Your task to perform on an android device: Clear the shopping cart on bestbuy.com. Add "logitech g pro" to the cart on bestbuy.com, then select checkout. Image 0: 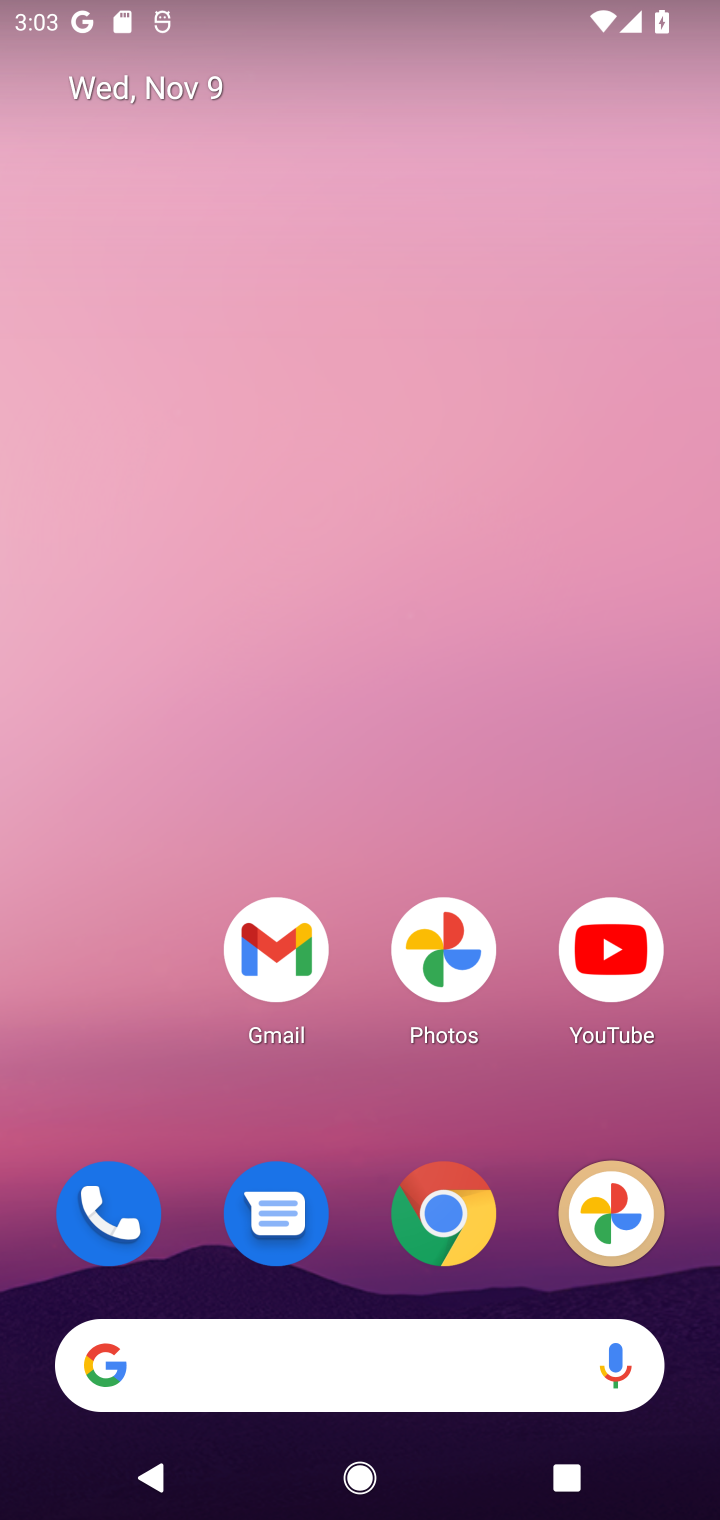
Step 0: click (444, 1216)
Your task to perform on an android device: Clear the shopping cart on bestbuy.com. Add "logitech g pro" to the cart on bestbuy.com, then select checkout. Image 1: 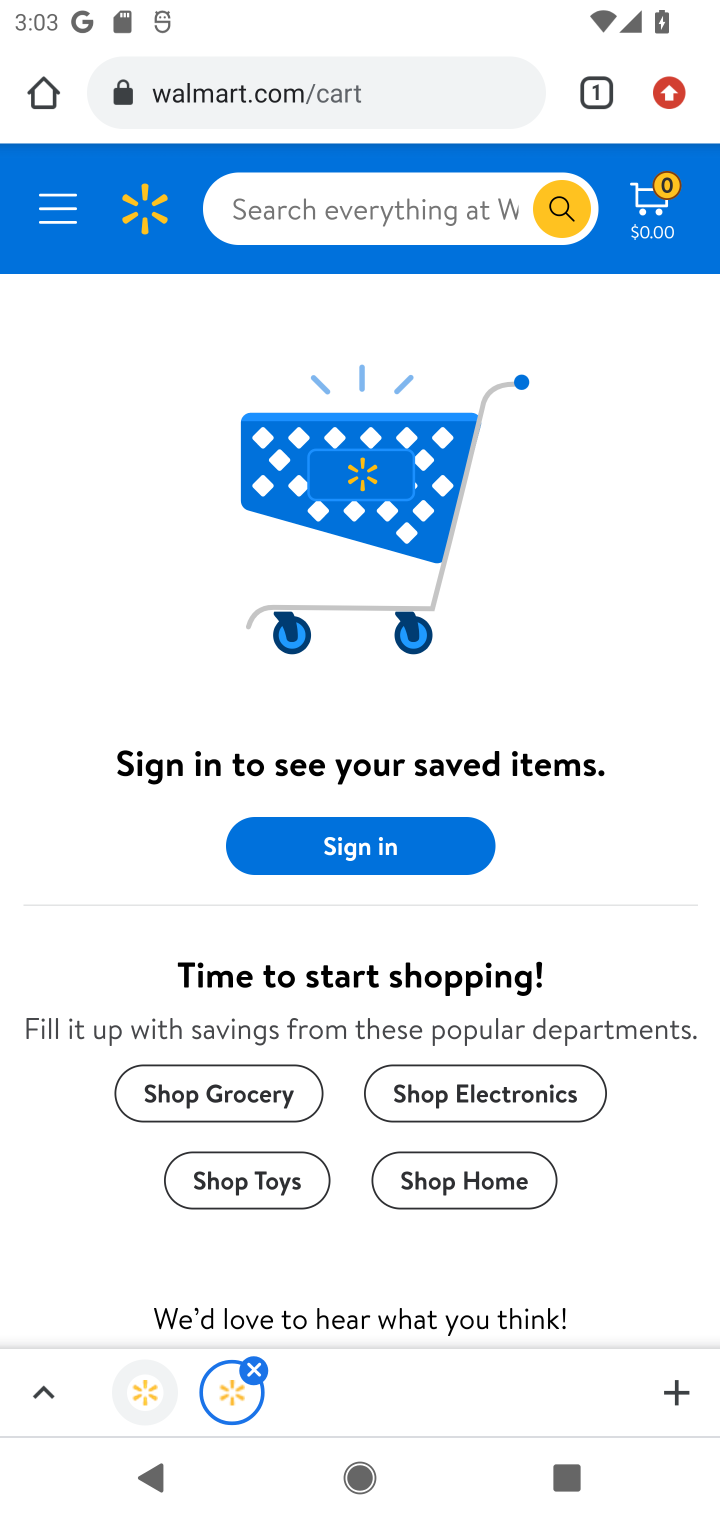
Step 1: click (377, 99)
Your task to perform on an android device: Clear the shopping cart on bestbuy.com. Add "logitech g pro" to the cart on bestbuy.com, then select checkout. Image 2: 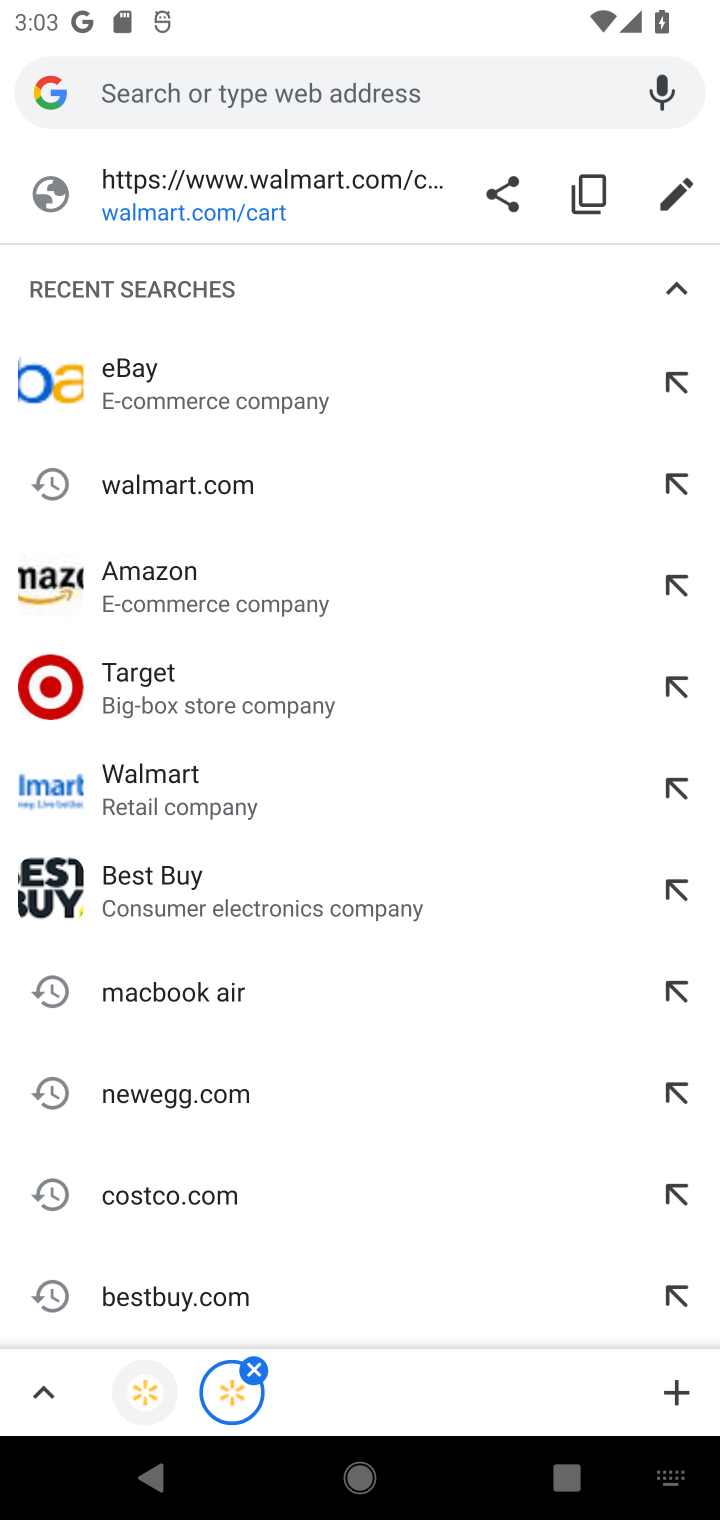
Step 2: type "bestbuy.com"
Your task to perform on an android device: Clear the shopping cart on bestbuy.com. Add "logitech g pro" to the cart on bestbuy.com, then select checkout. Image 3: 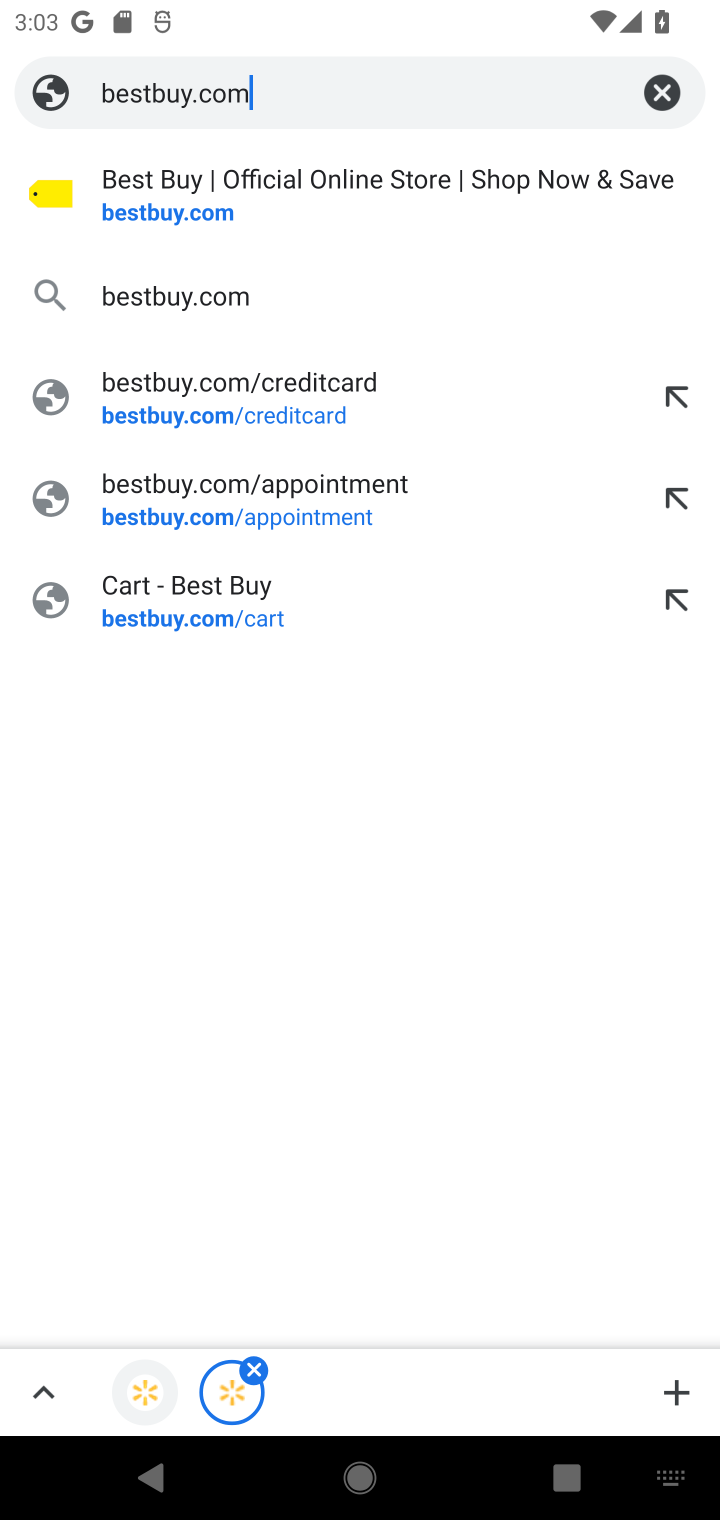
Step 3: click (206, 296)
Your task to perform on an android device: Clear the shopping cart on bestbuy.com. Add "logitech g pro" to the cart on bestbuy.com, then select checkout. Image 4: 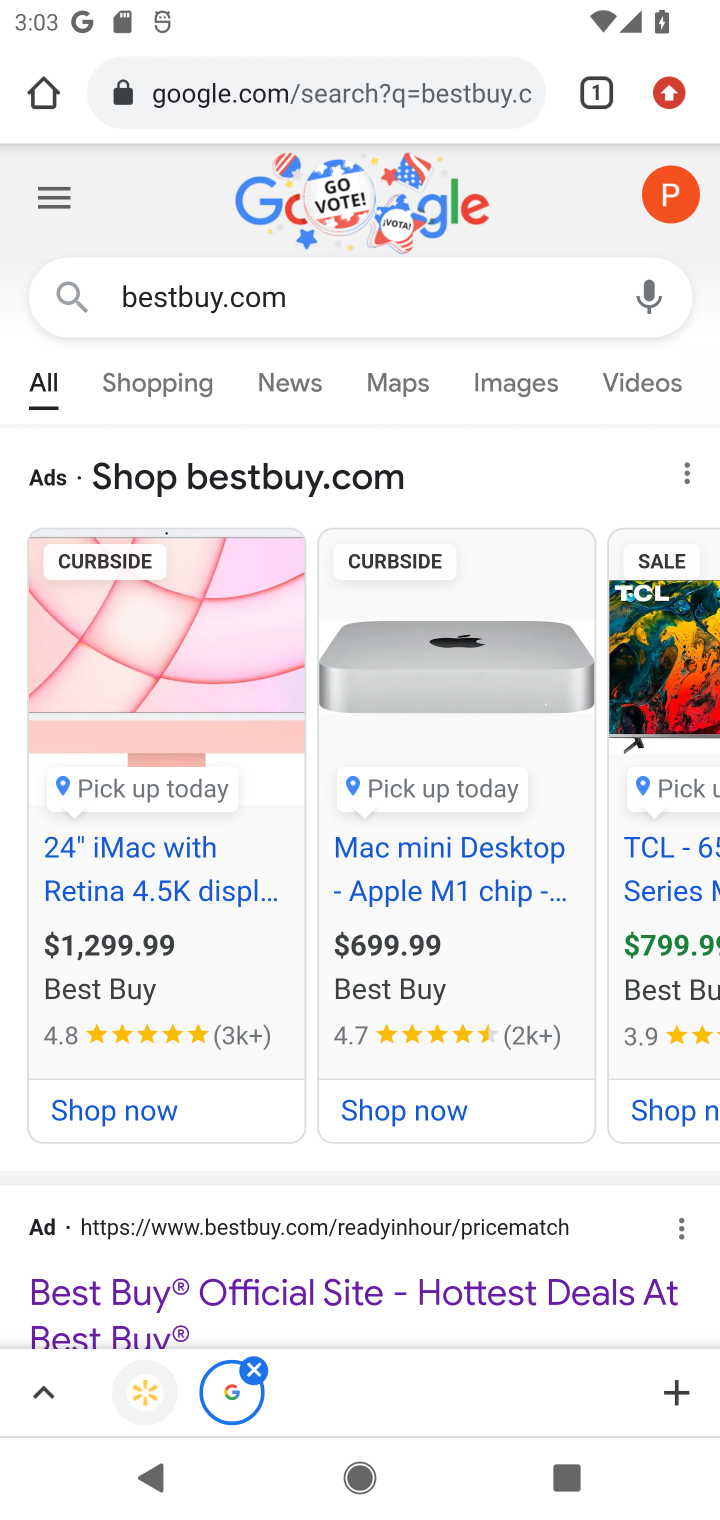
Step 4: drag from (325, 1240) to (369, 520)
Your task to perform on an android device: Clear the shopping cart on bestbuy.com. Add "logitech g pro" to the cart on bestbuy.com, then select checkout. Image 5: 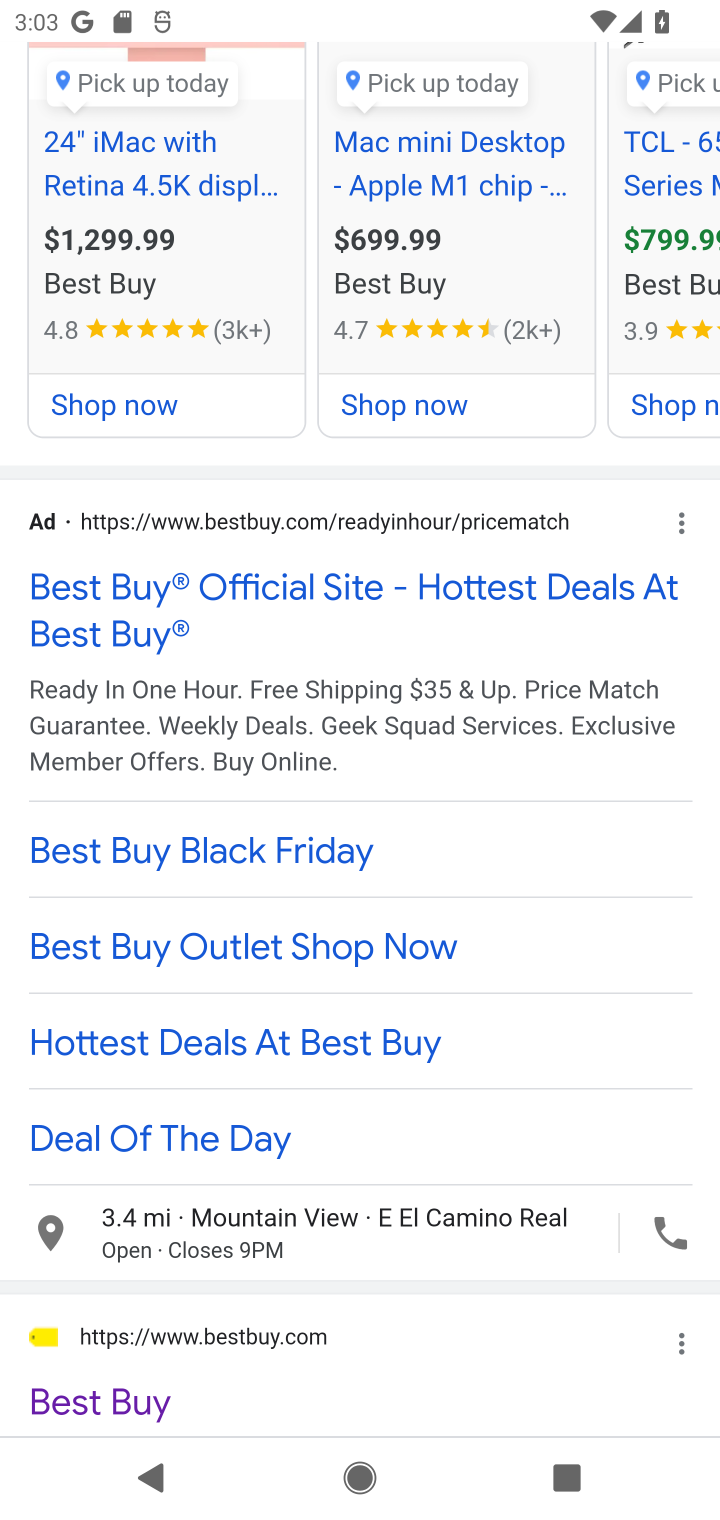
Step 5: click (255, 1344)
Your task to perform on an android device: Clear the shopping cart on bestbuy.com. Add "logitech g pro" to the cart on bestbuy.com, then select checkout. Image 6: 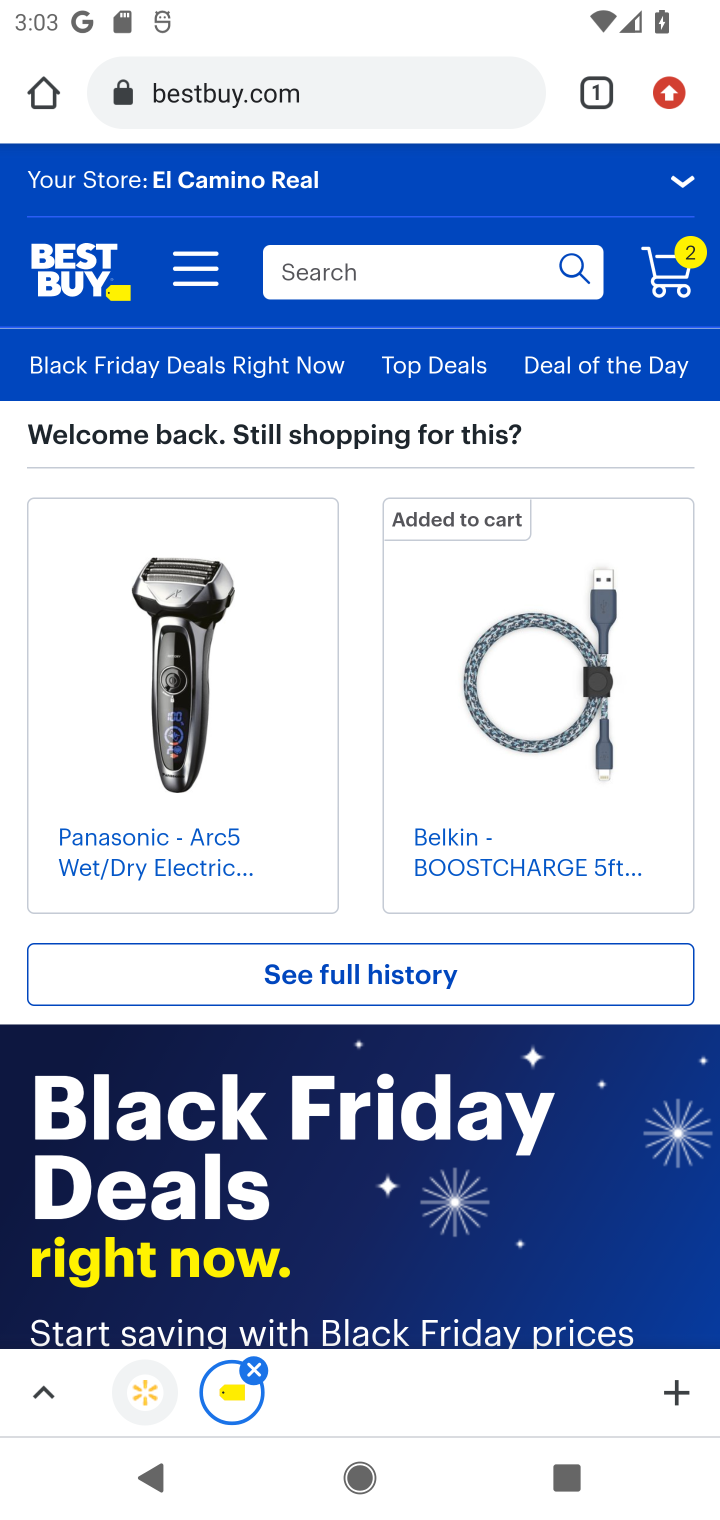
Step 6: click (683, 269)
Your task to perform on an android device: Clear the shopping cart on bestbuy.com. Add "logitech g pro" to the cart on bestbuy.com, then select checkout. Image 7: 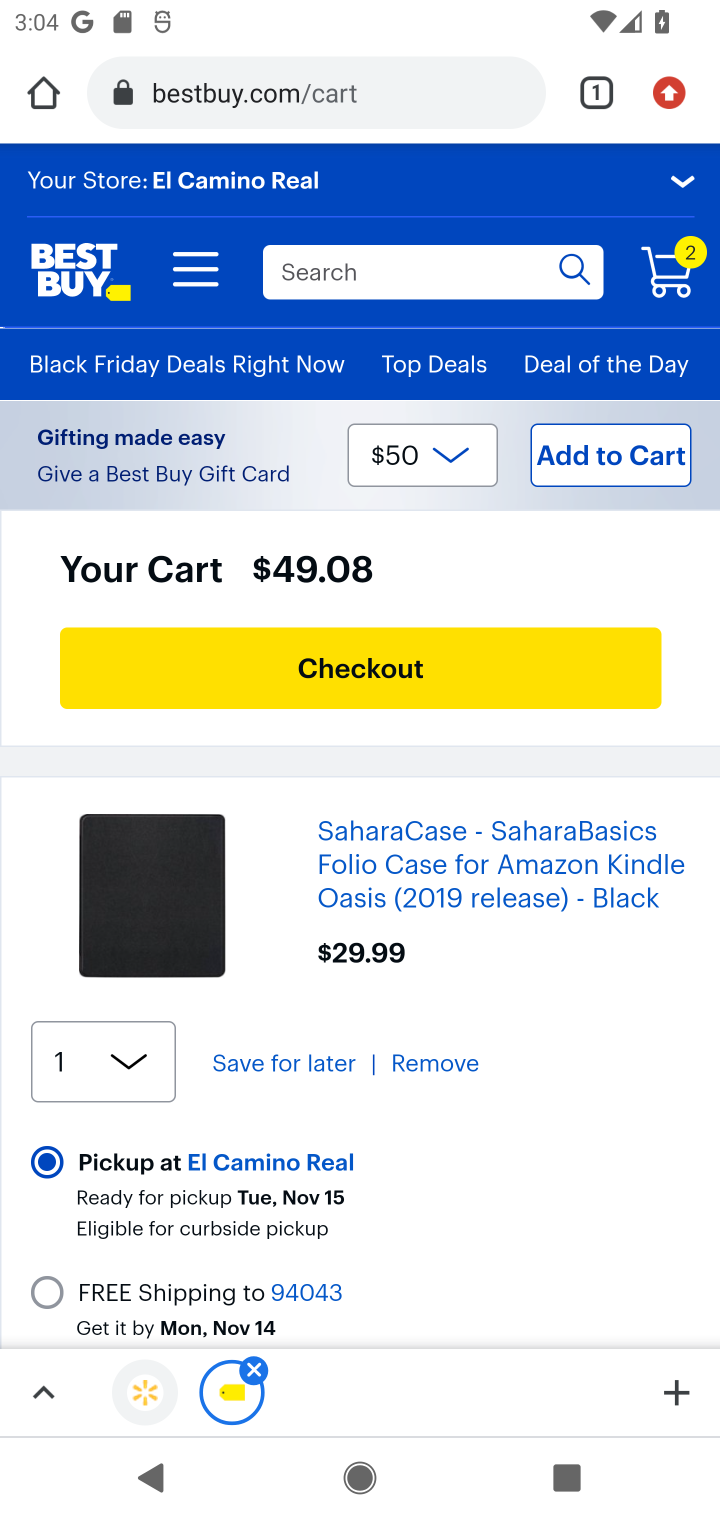
Step 7: click (460, 1066)
Your task to perform on an android device: Clear the shopping cart on bestbuy.com. Add "logitech g pro" to the cart on bestbuy.com, then select checkout. Image 8: 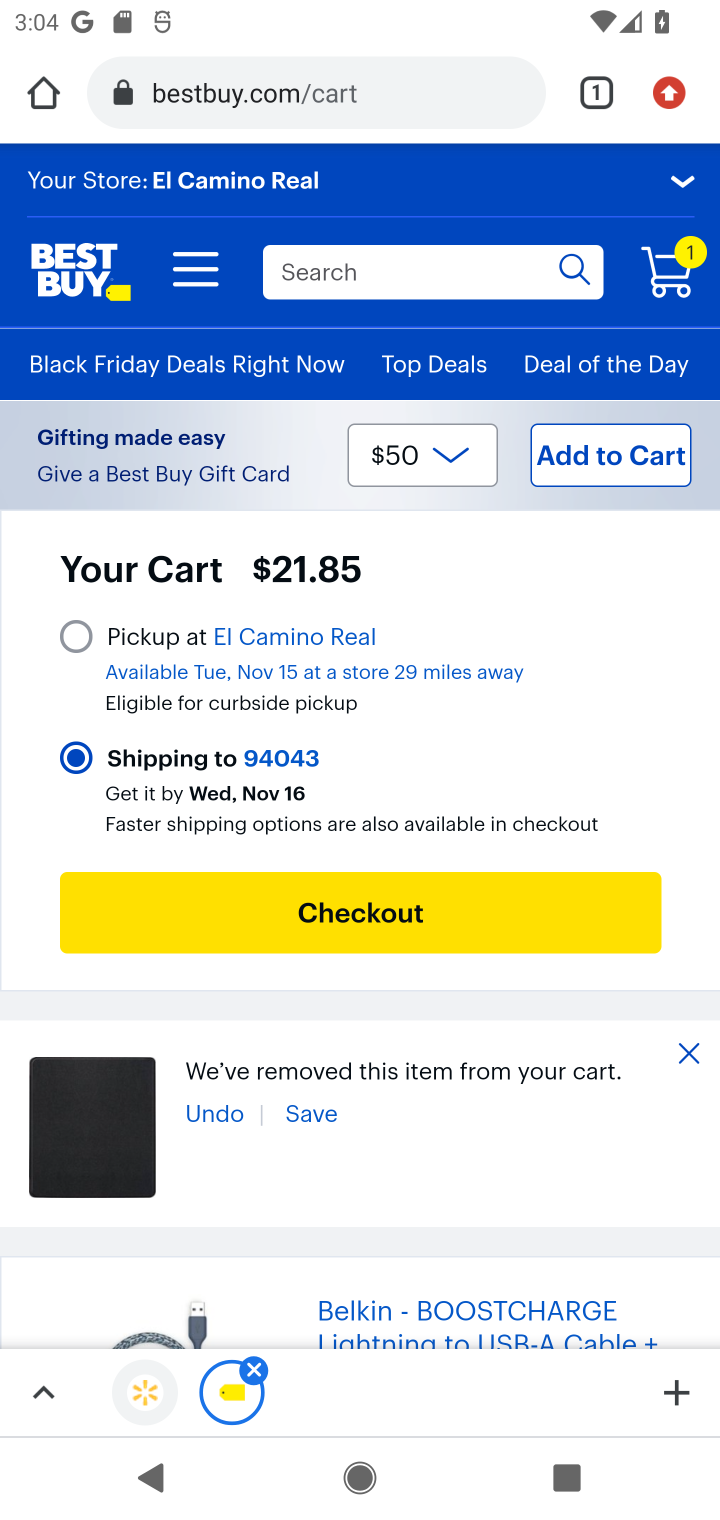
Step 8: drag from (419, 1196) to (440, 623)
Your task to perform on an android device: Clear the shopping cart on bestbuy.com. Add "logitech g pro" to the cart on bestbuy.com, then select checkout. Image 9: 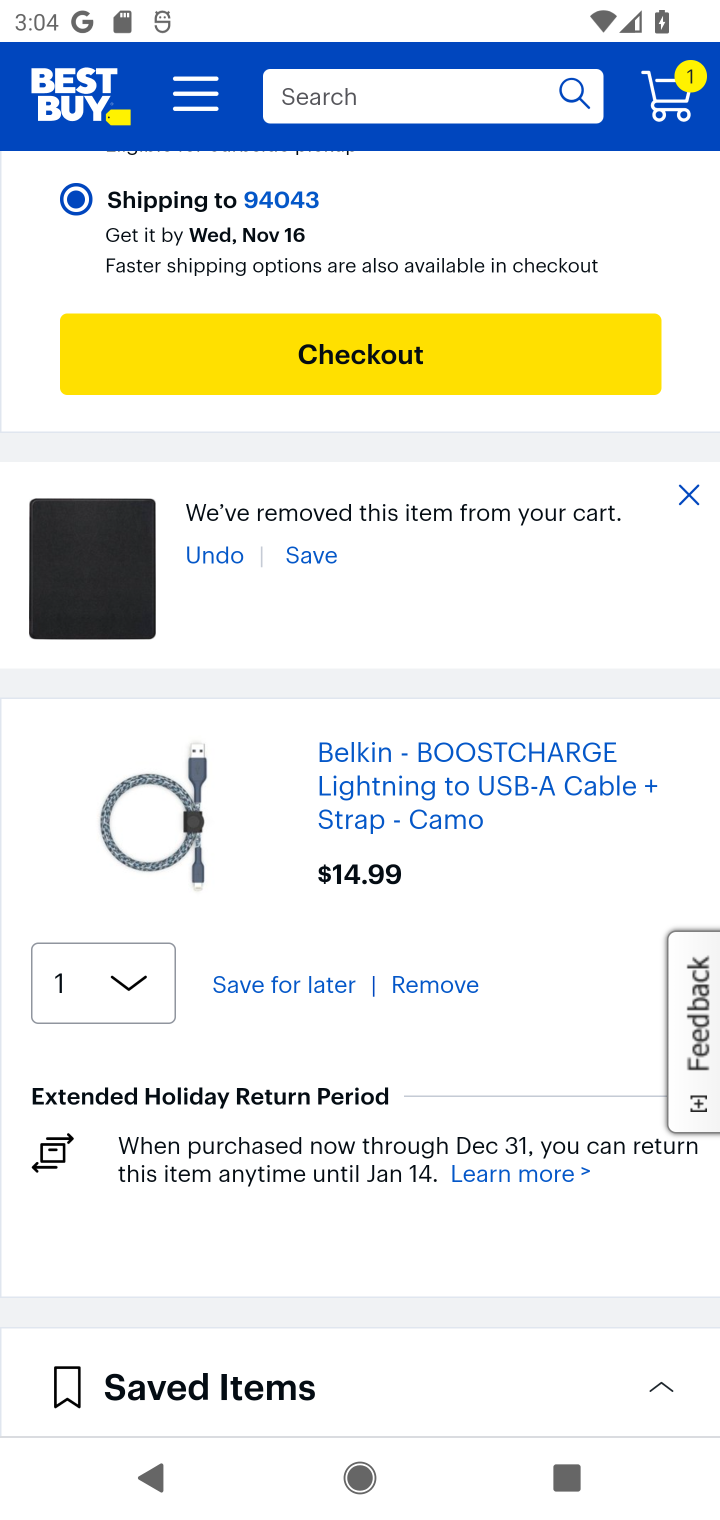
Step 9: click (428, 982)
Your task to perform on an android device: Clear the shopping cart on bestbuy.com. Add "logitech g pro" to the cart on bestbuy.com, then select checkout. Image 10: 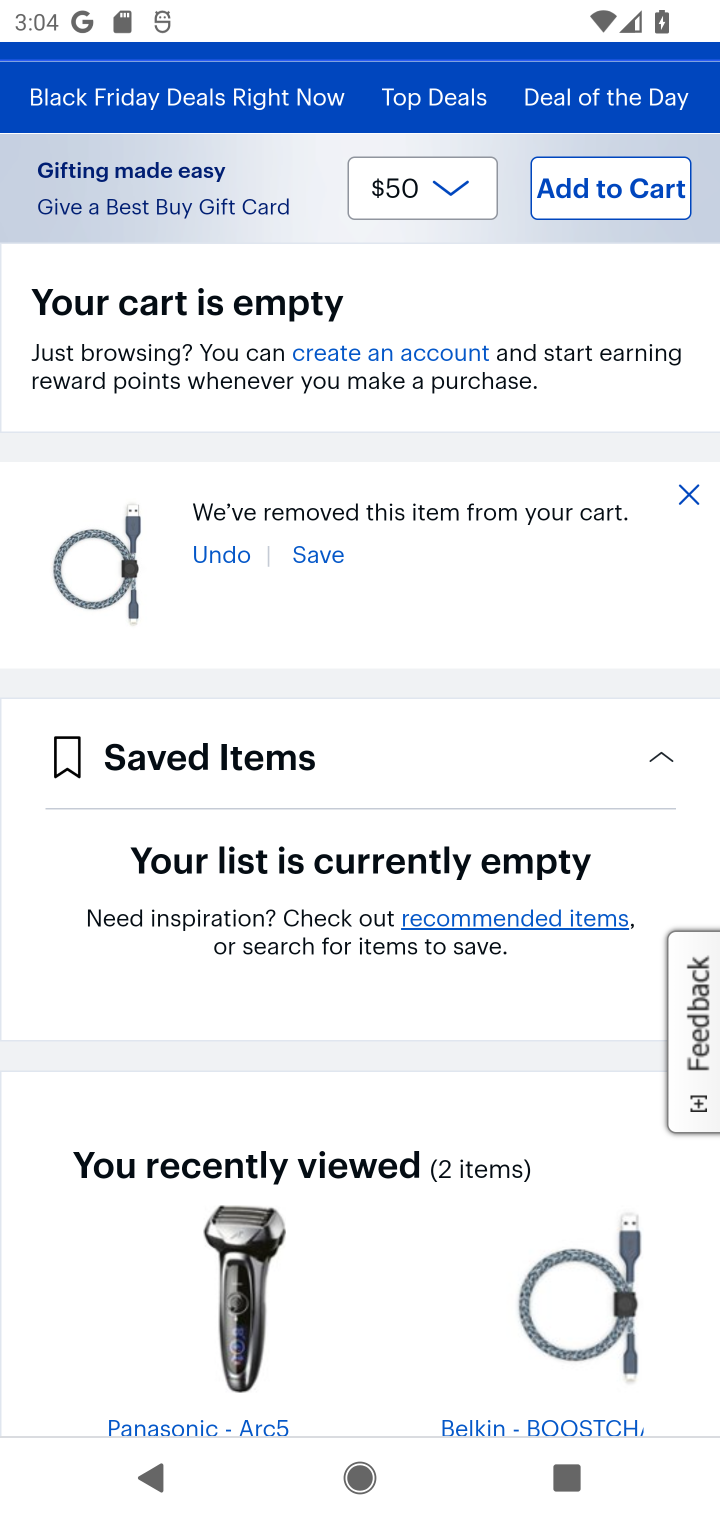
Step 10: drag from (412, 504) to (418, 1132)
Your task to perform on an android device: Clear the shopping cart on bestbuy.com. Add "logitech g pro" to the cart on bestbuy.com, then select checkout. Image 11: 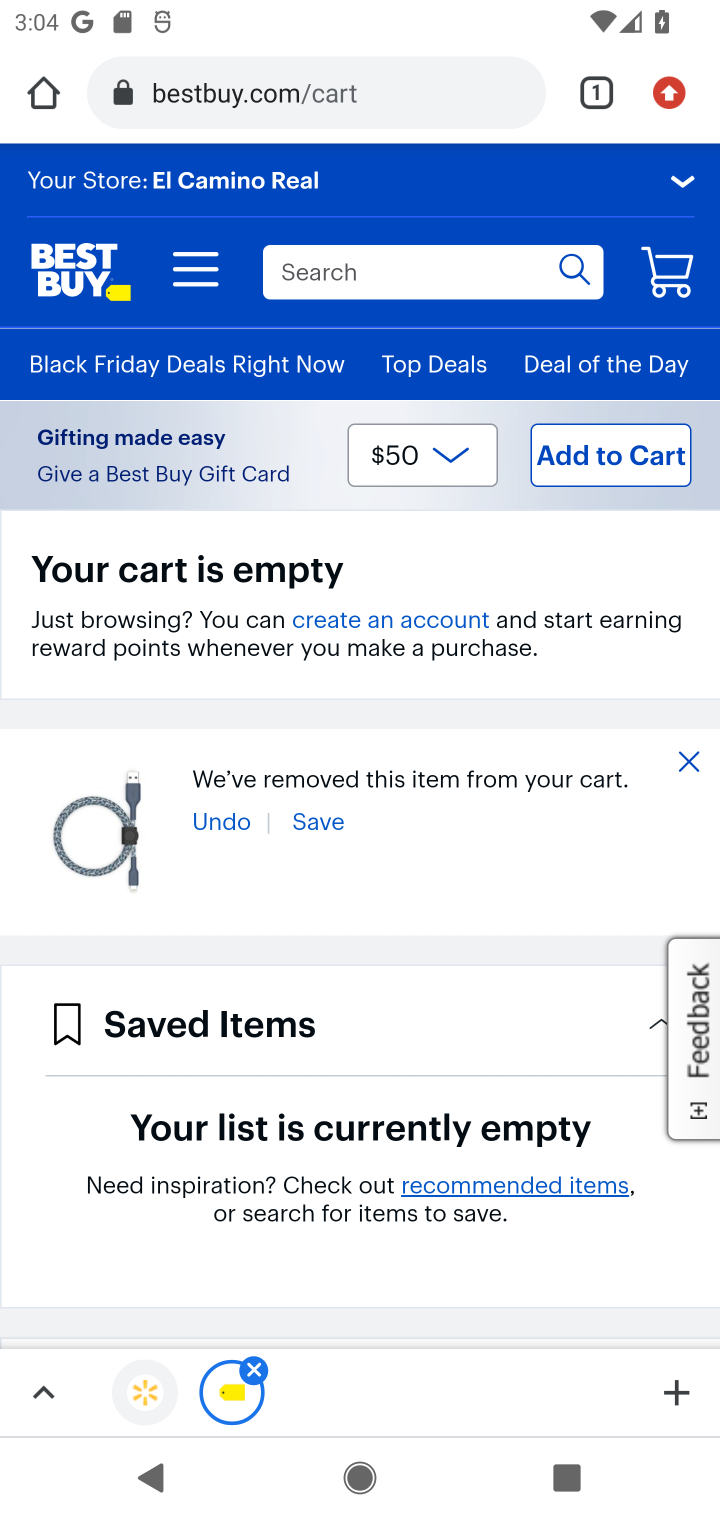
Step 11: click (412, 280)
Your task to perform on an android device: Clear the shopping cart on bestbuy.com. Add "logitech g pro" to the cart on bestbuy.com, then select checkout. Image 12: 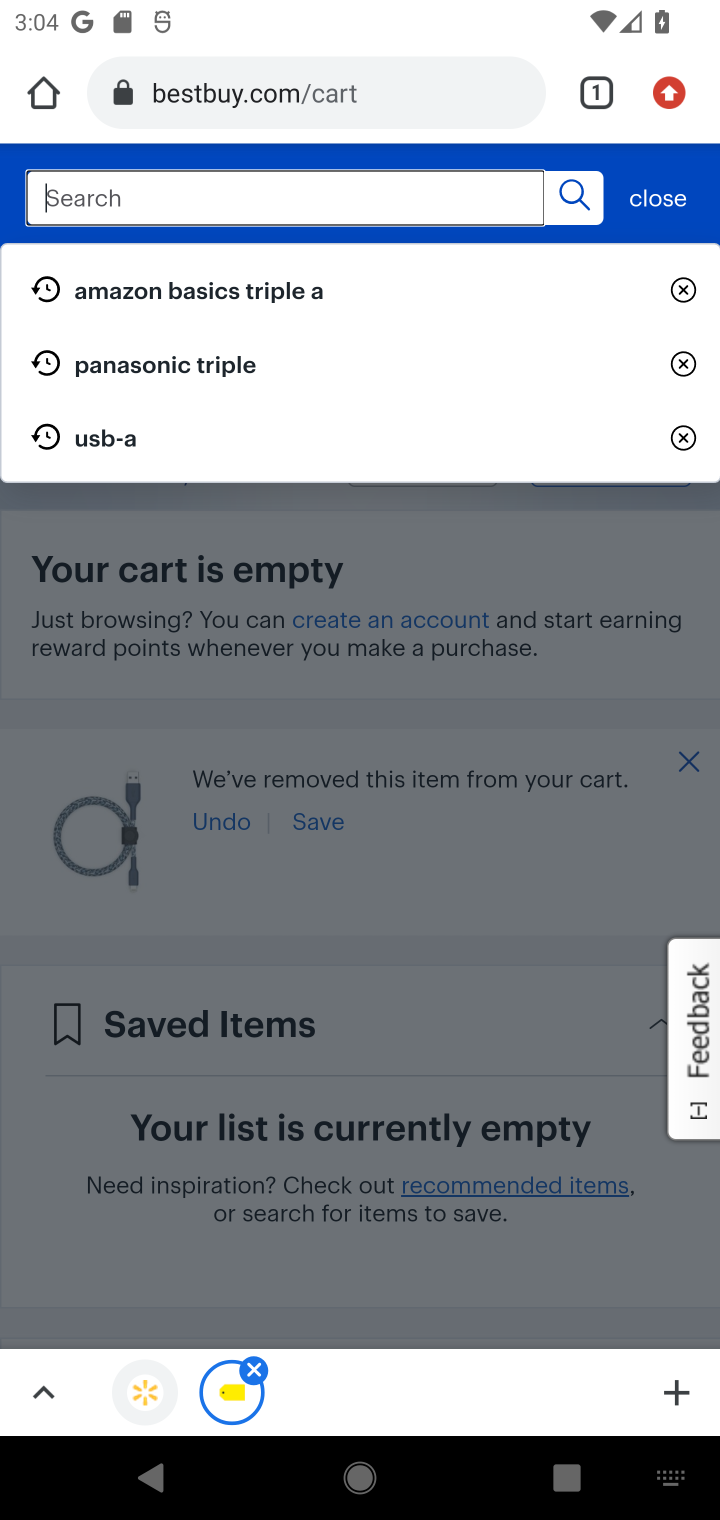
Step 12: type "logitech g pro"
Your task to perform on an android device: Clear the shopping cart on bestbuy.com. Add "logitech g pro" to the cart on bestbuy.com, then select checkout. Image 13: 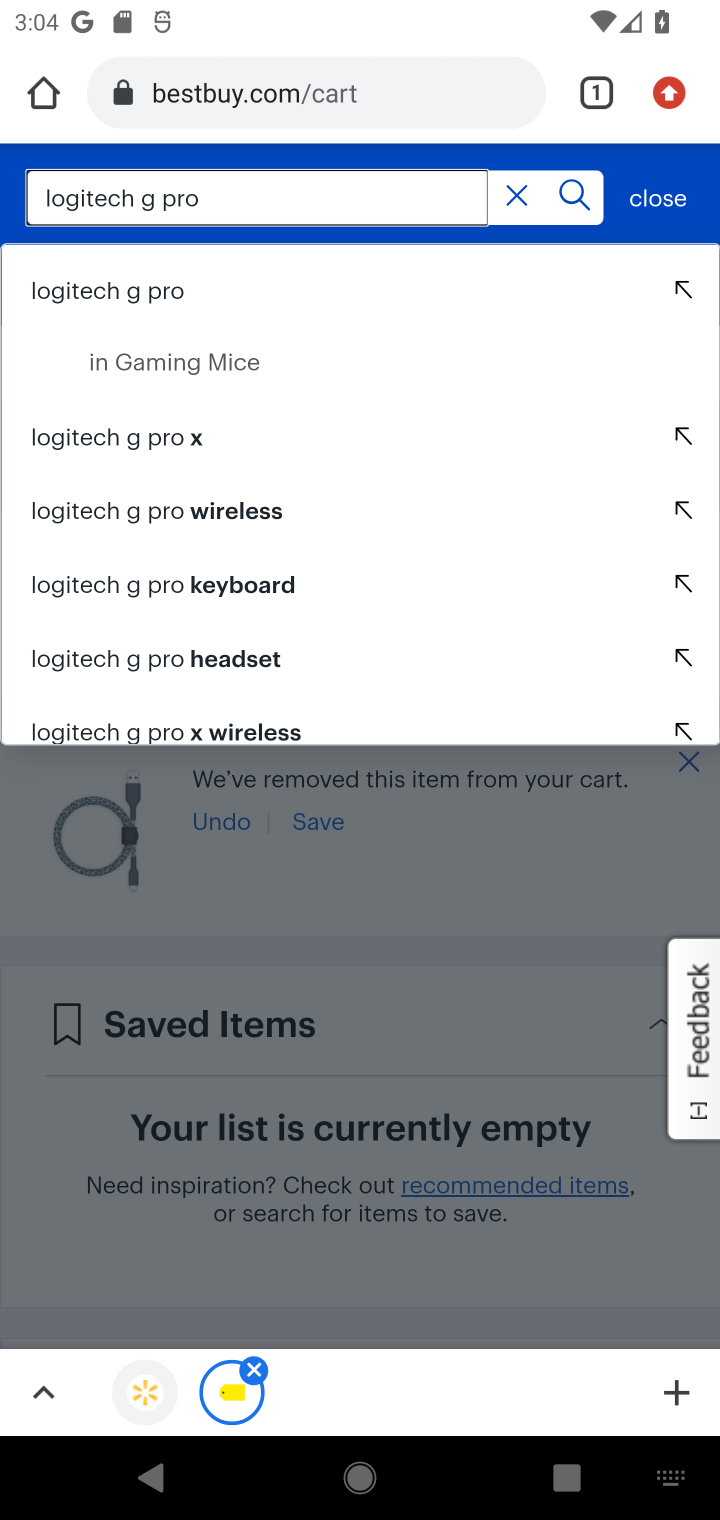
Step 13: click (136, 301)
Your task to perform on an android device: Clear the shopping cart on bestbuy.com. Add "logitech g pro" to the cart on bestbuy.com, then select checkout. Image 14: 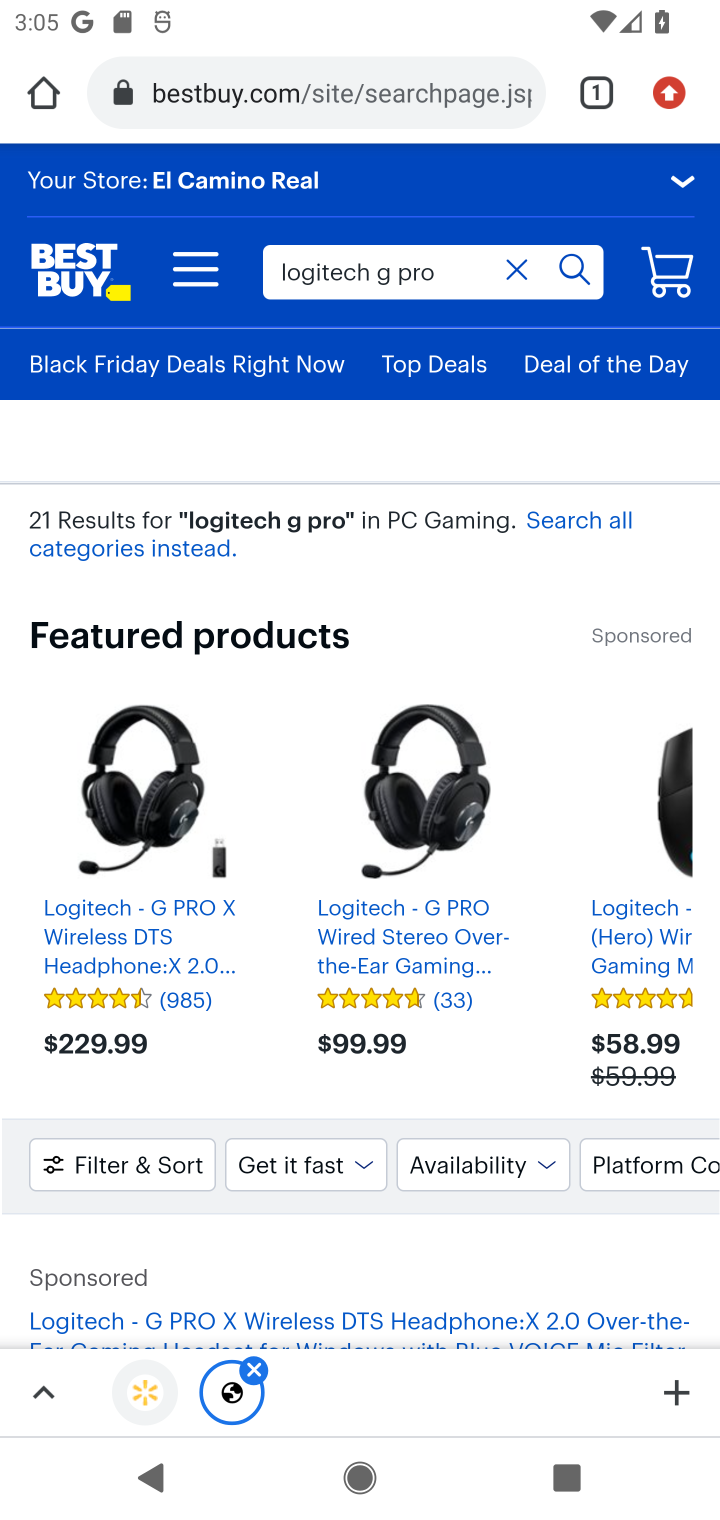
Step 14: drag from (409, 1250) to (512, 586)
Your task to perform on an android device: Clear the shopping cart on bestbuy.com. Add "logitech g pro" to the cart on bestbuy.com, then select checkout. Image 15: 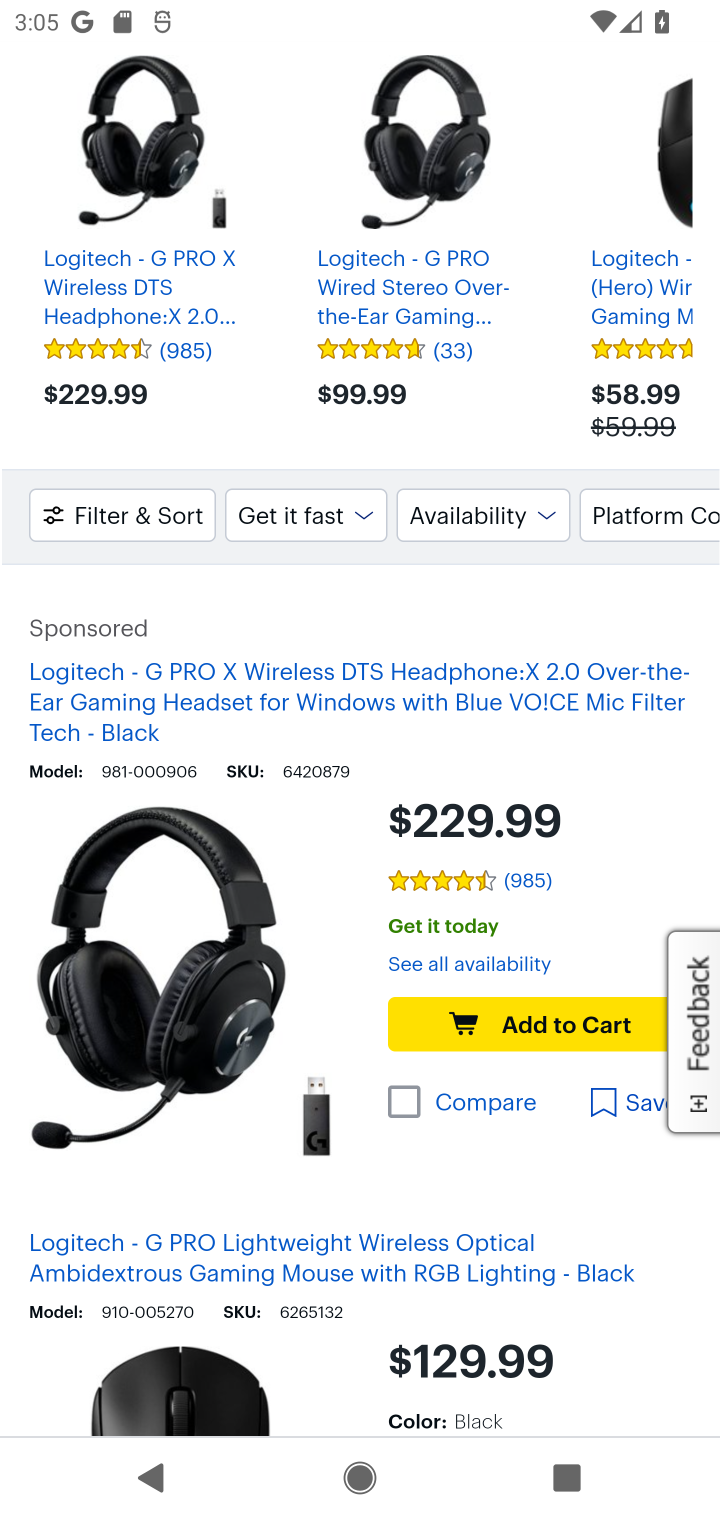
Step 15: click (515, 1016)
Your task to perform on an android device: Clear the shopping cart on bestbuy.com. Add "logitech g pro" to the cart on bestbuy.com, then select checkout. Image 16: 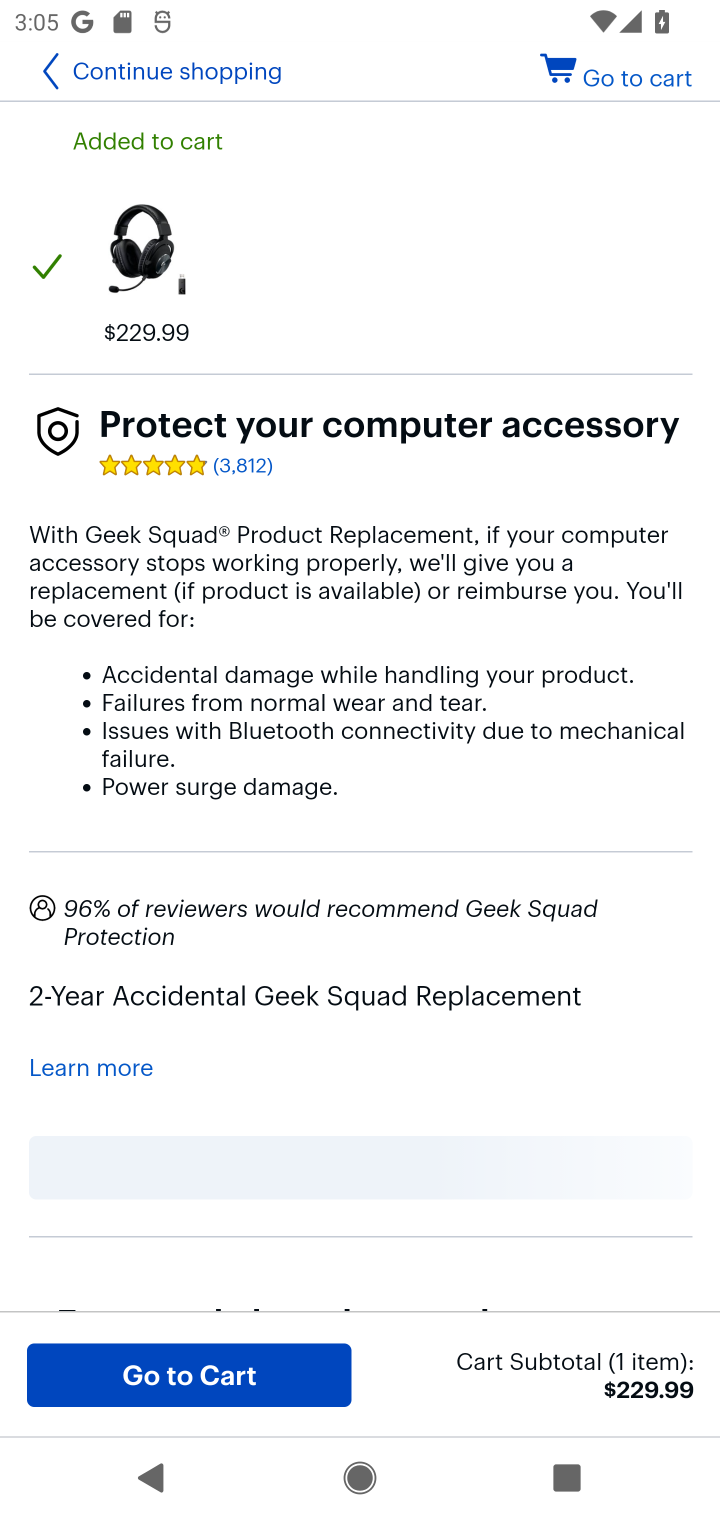
Step 16: click (184, 1367)
Your task to perform on an android device: Clear the shopping cart on bestbuy.com. Add "logitech g pro" to the cart on bestbuy.com, then select checkout. Image 17: 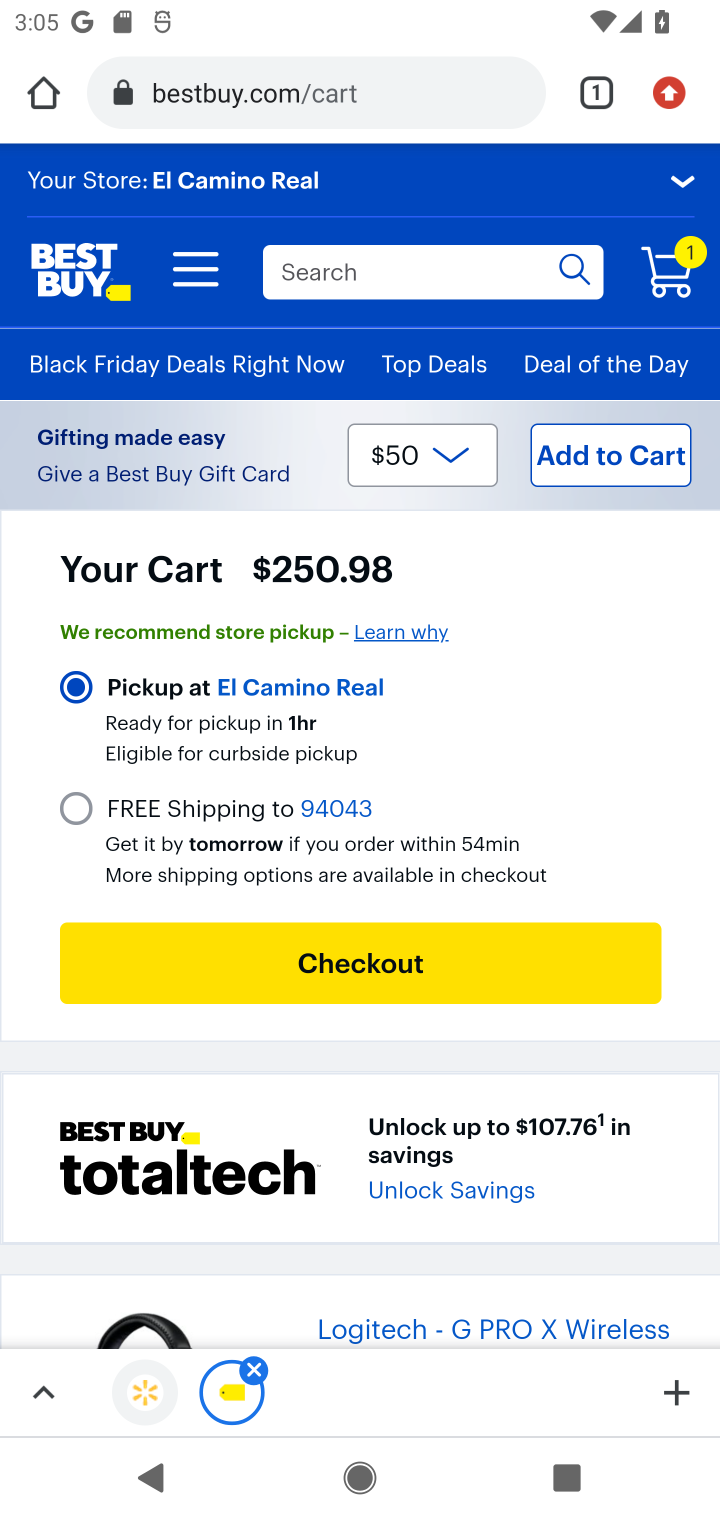
Step 17: click (419, 963)
Your task to perform on an android device: Clear the shopping cart on bestbuy.com. Add "logitech g pro" to the cart on bestbuy.com, then select checkout. Image 18: 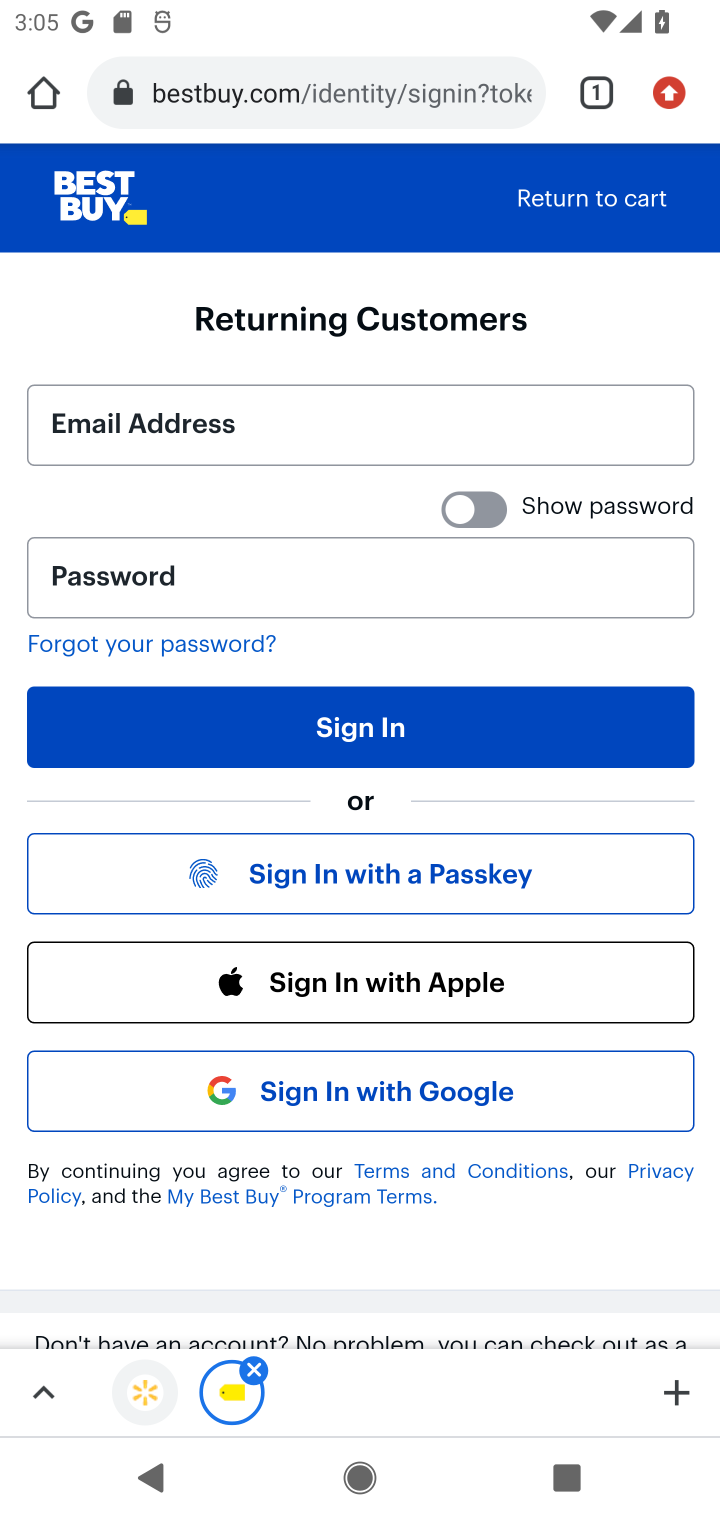
Step 18: task complete